Your task to perform on an android device: turn off javascript in the chrome app Image 0: 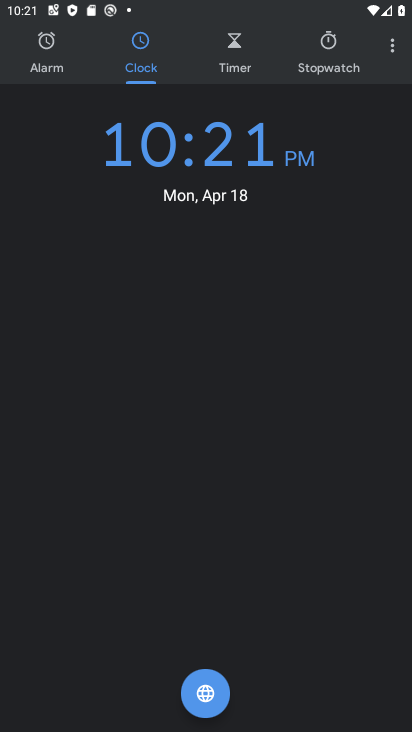
Step 0: press home button
Your task to perform on an android device: turn off javascript in the chrome app Image 1: 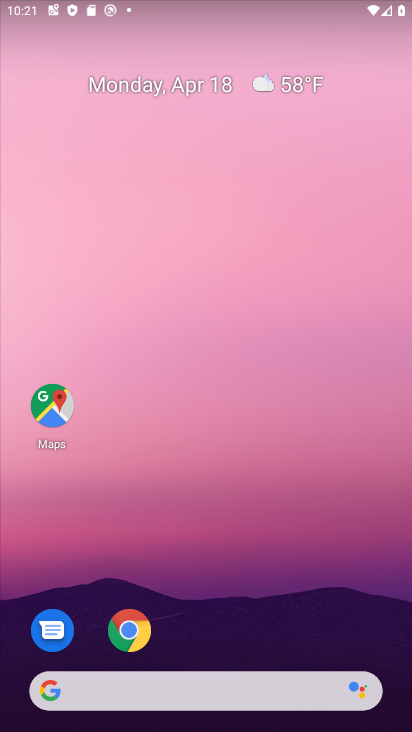
Step 1: click (121, 621)
Your task to perform on an android device: turn off javascript in the chrome app Image 2: 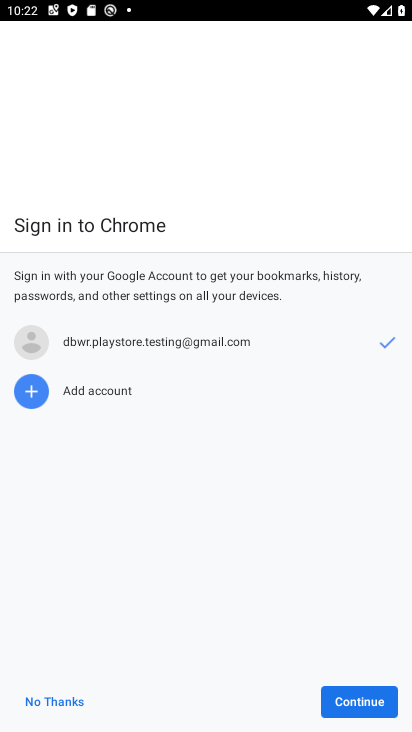
Step 2: click (340, 704)
Your task to perform on an android device: turn off javascript in the chrome app Image 3: 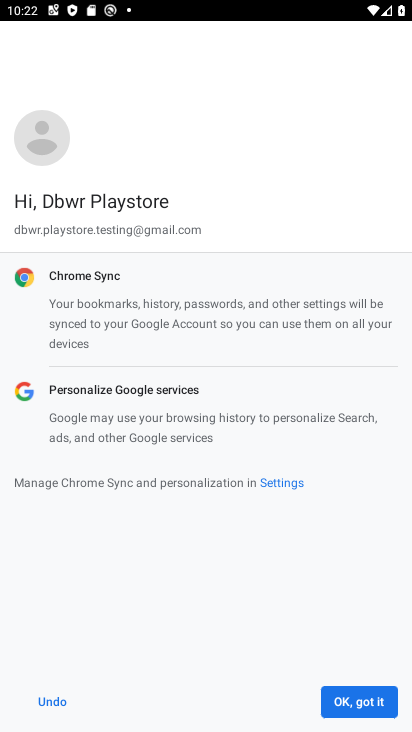
Step 3: click (340, 704)
Your task to perform on an android device: turn off javascript in the chrome app Image 4: 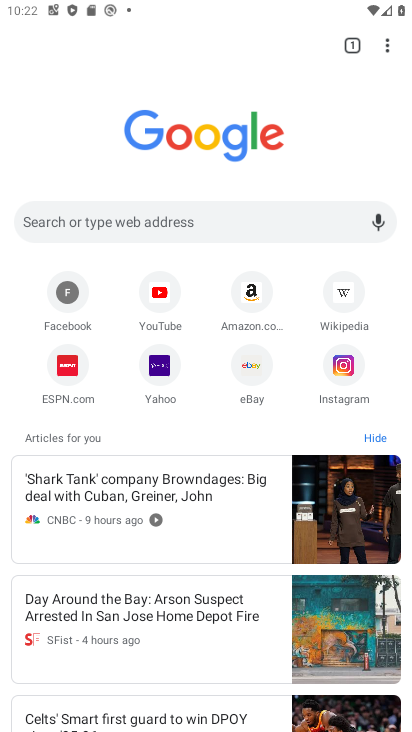
Step 4: click (340, 704)
Your task to perform on an android device: turn off javascript in the chrome app Image 5: 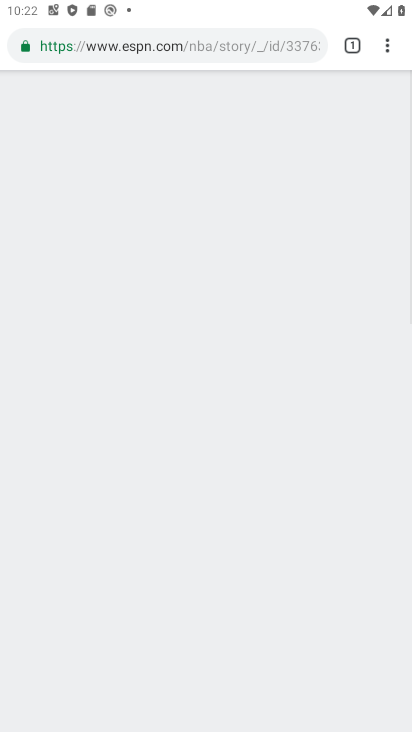
Step 5: click (394, 40)
Your task to perform on an android device: turn off javascript in the chrome app Image 6: 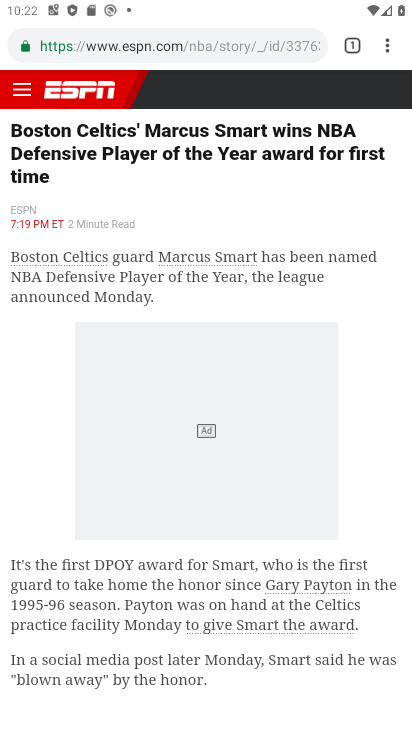
Step 6: click (385, 44)
Your task to perform on an android device: turn off javascript in the chrome app Image 7: 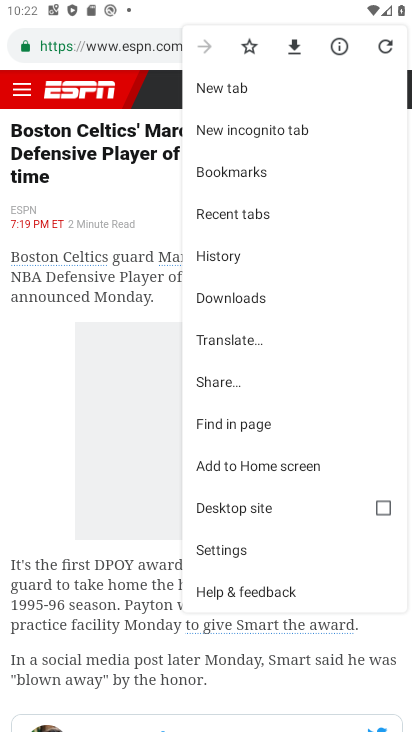
Step 7: click (218, 546)
Your task to perform on an android device: turn off javascript in the chrome app Image 8: 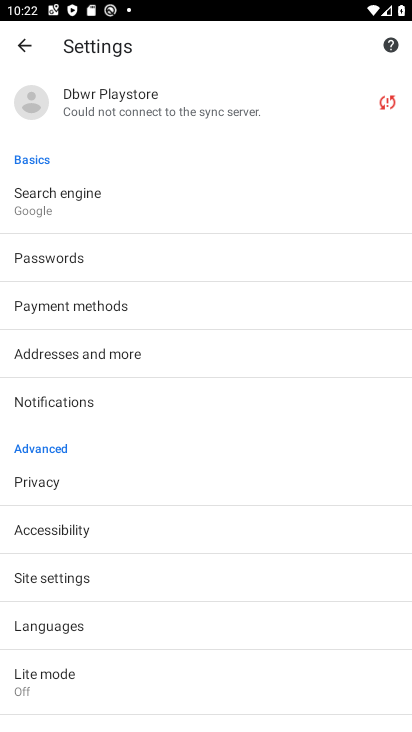
Step 8: click (77, 582)
Your task to perform on an android device: turn off javascript in the chrome app Image 9: 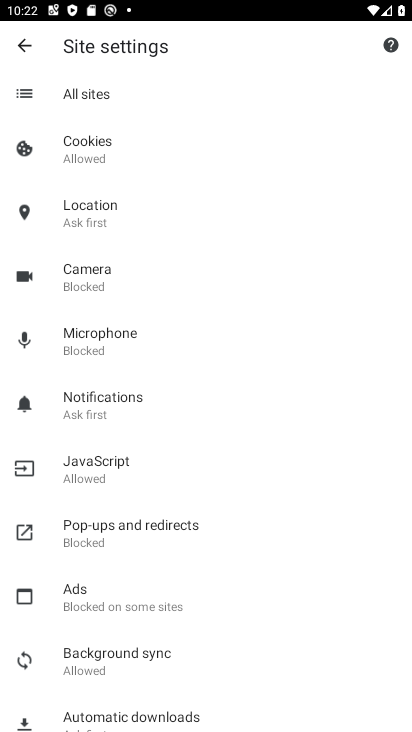
Step 9: click (104, 478)
Your task to perform on an android device: turn off javascript in the chrome app Image 10: 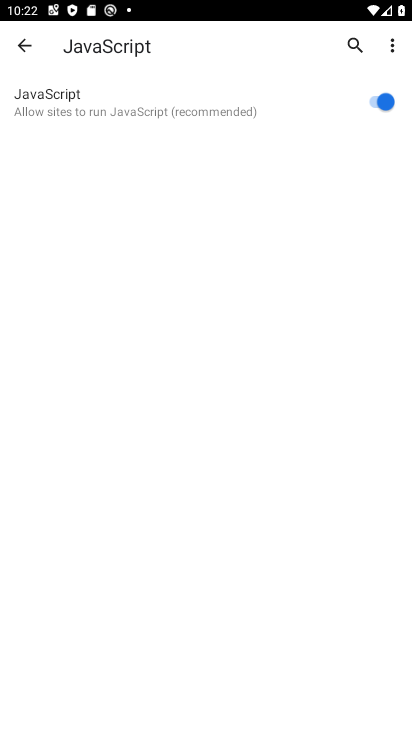
Step 10: click (384, 104)
Your task to perform on an android device: turn off javascript in the chrome app Image 11: 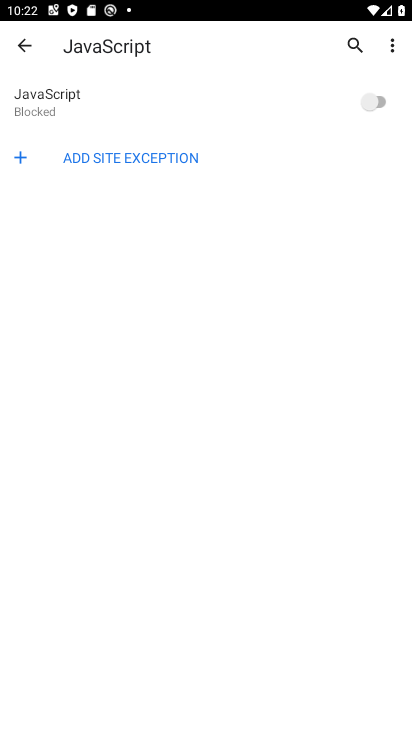
Step 11: task complete